Your task to perform on an android device: toggle javascript in the chrome app Image 0: 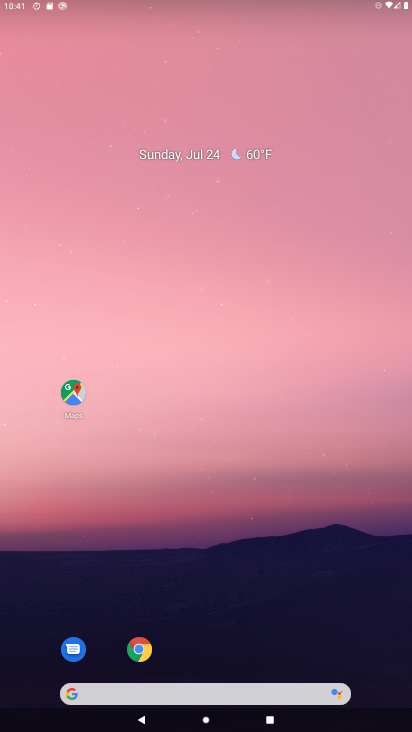
Step 0: drag from (278, 451) to (158, 61)
Your task to perform on an android device: toggle javascript in the chrome app Image 1: 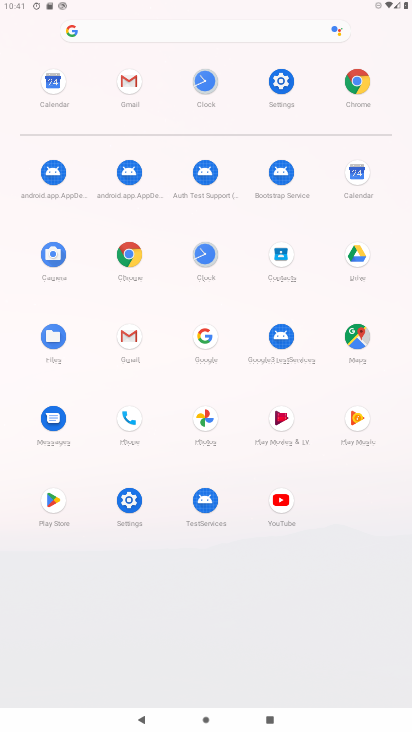
Step 1: click (131, 255)
Your task to perform on an android device: toggle javascript in the chrome app Image 2: 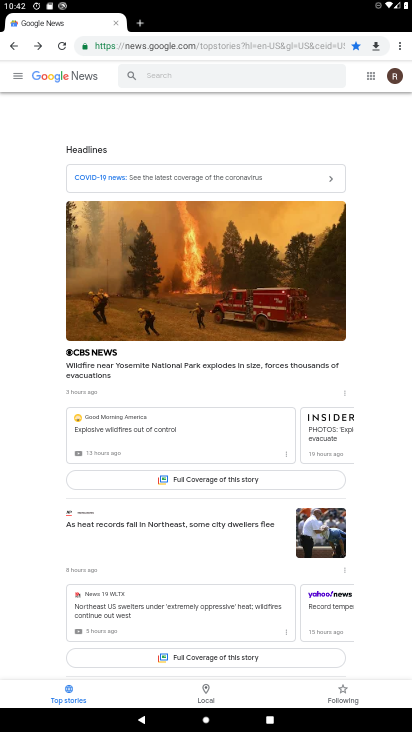
Step 2: drag from (398, 43) to (312, 339)
Your task to perform on an android device: toggle javascript in the chrome app Image 3: 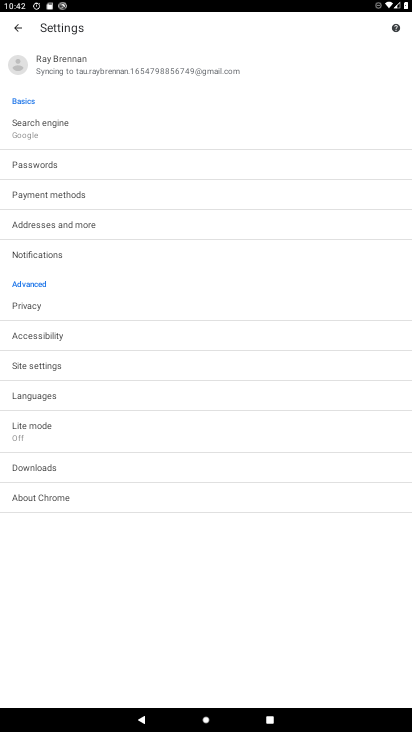
Step 3: click (63, 371)
Your task to perform on an android device: toggle javascript in the chrome app Image 4: 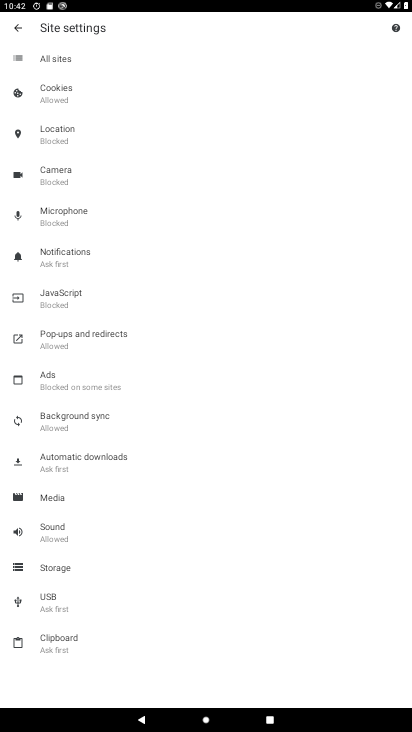
Step 4: click (51, 301)
Your task to perform on an android device: toggle javascript in the chrome app Image 5: 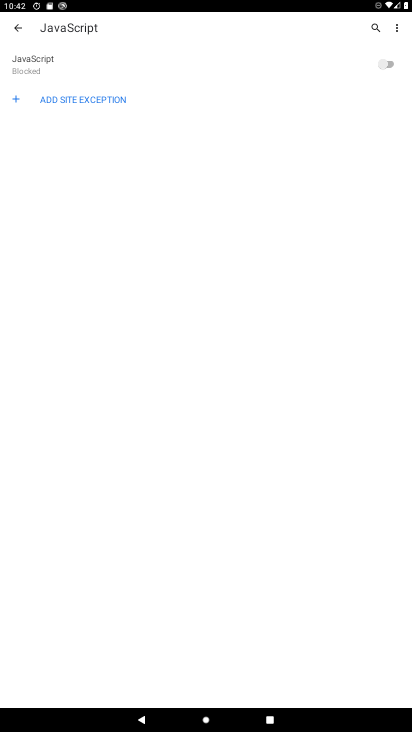
Step 5: click (374, 69)
Your task to perform on an android device: toggle javascript in the chrome app Image 6: 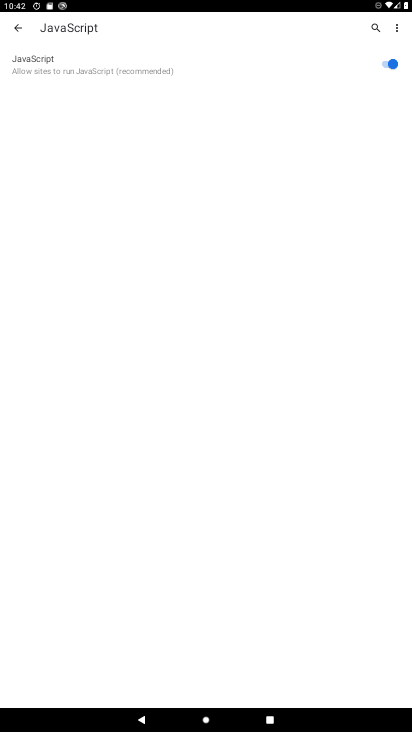
Step 6: task complete